Your task to perform on an android device: change notifications settings Image 0: 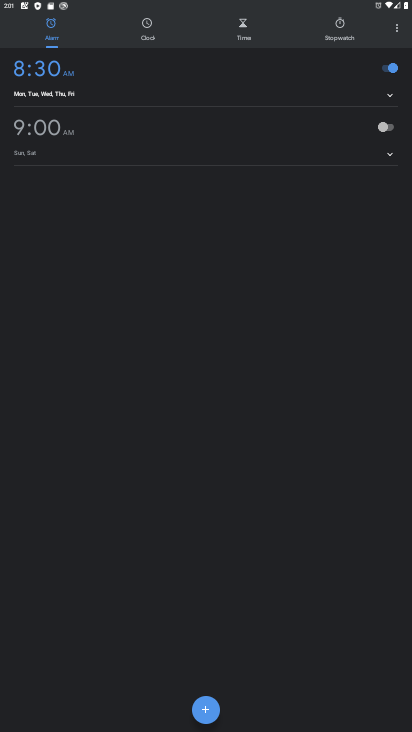
Step 0: press home button
Your task to perform on an android device: change notifications settings Image 1: 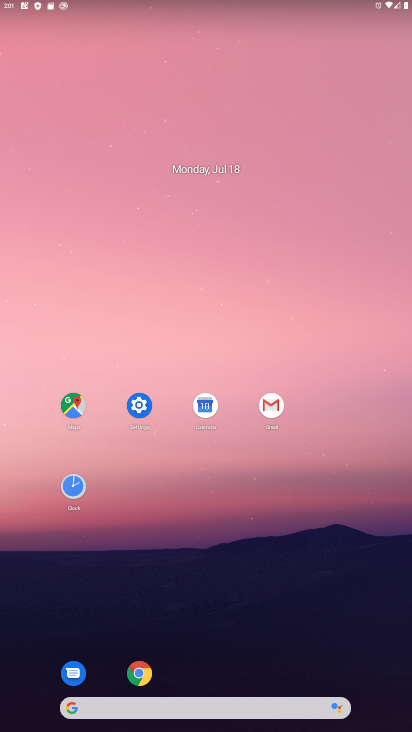
Step 1: click (140, 404)
Your task to perform on an android device: change notifications settings Image 2: 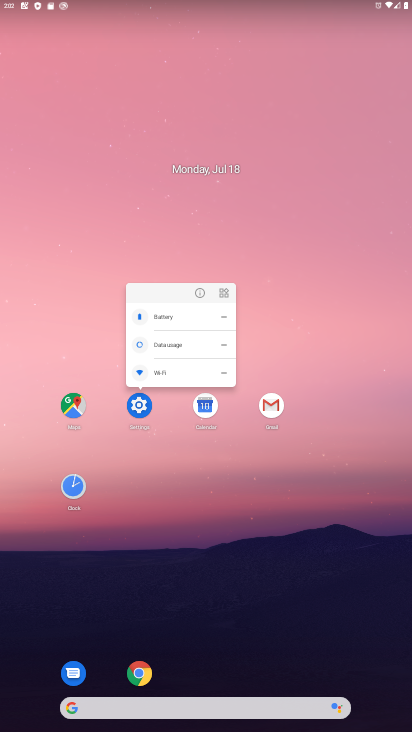
Step 2: click (141, 400)
Your task to perform on an android device: change notifications settings Image 3: 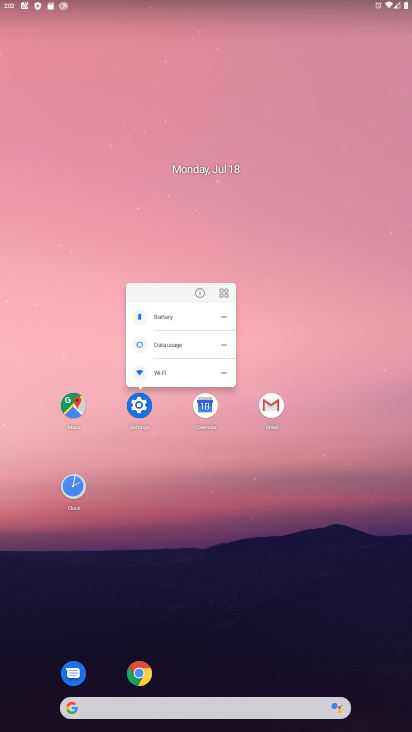
Step 3: click (132, 401)
Your task to perform on an android device: change notifications settings Image 4: 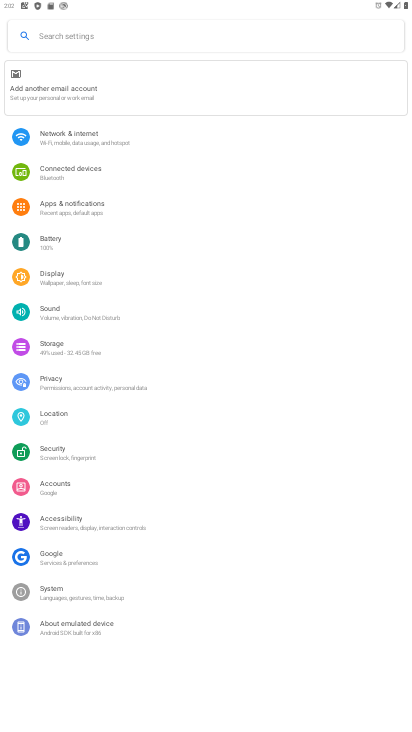
Step 4: click (77, 210)
Your task to perform on an android device: change notifications settings Image 5: 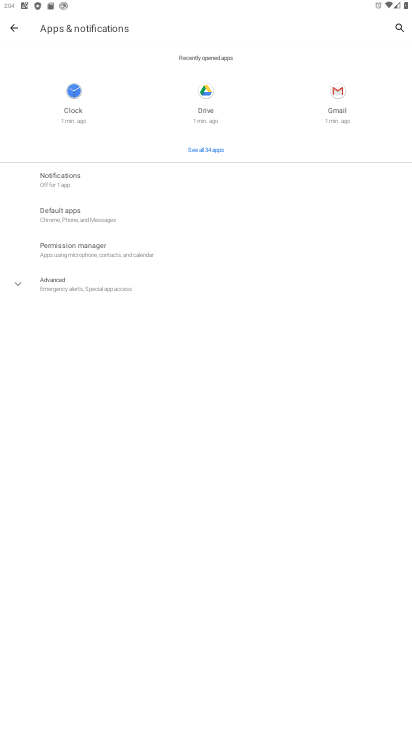
Step 5: task complete